Your task to perform on an android device: Is it going to rain today? Image 0: 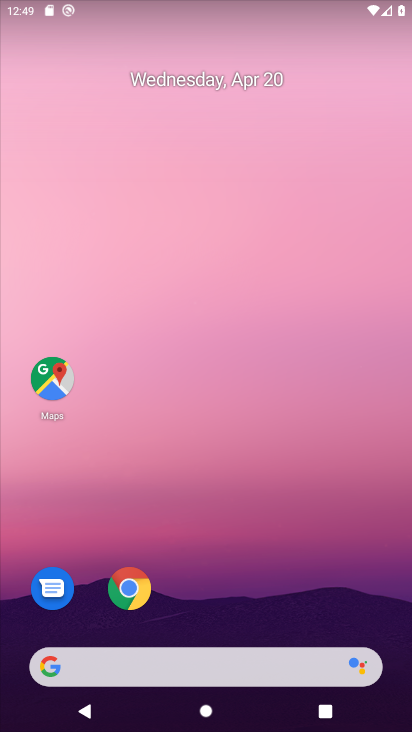
Step 0: drag from (184, 630) to (321, 126)
Your task to perform on an android device: Is it going to rain today? Image 1: 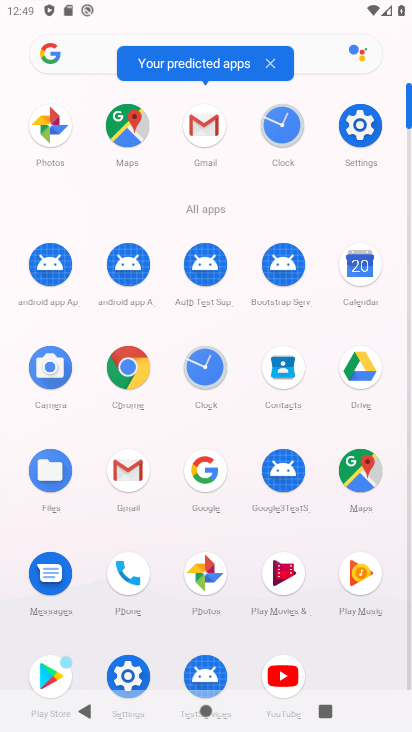
Step 1: click (201, 469)
Your task to perform on an android device: Is it going to rain today? Image 2: 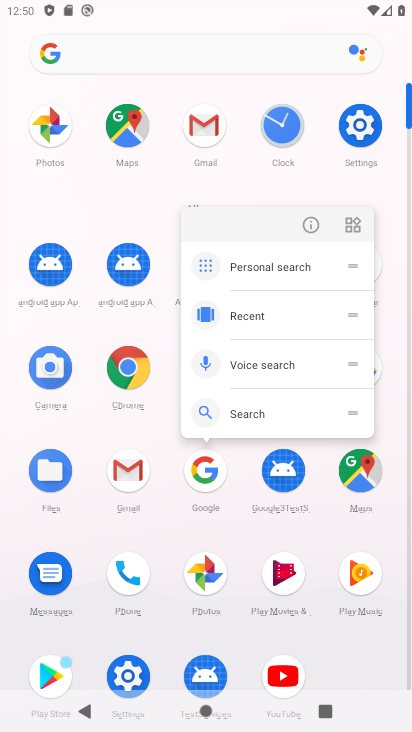
Step 2: click (205, 473)
Your task to perform on an android device: Is it going to rain today? Image 3: 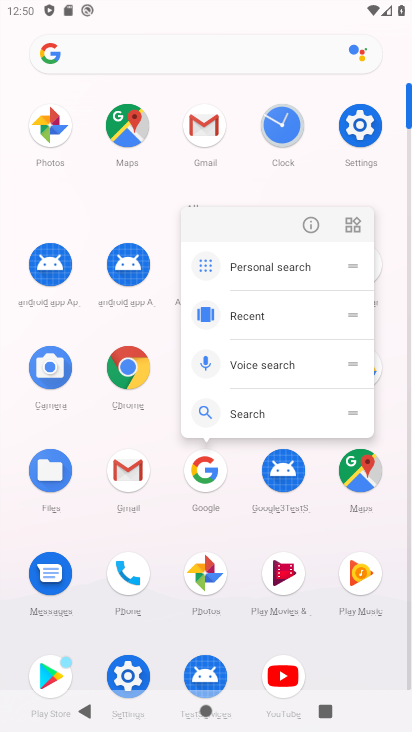
Step 3: click (209, 480)
Your task to perform on an android device: Is it going to rain today? Image 4: 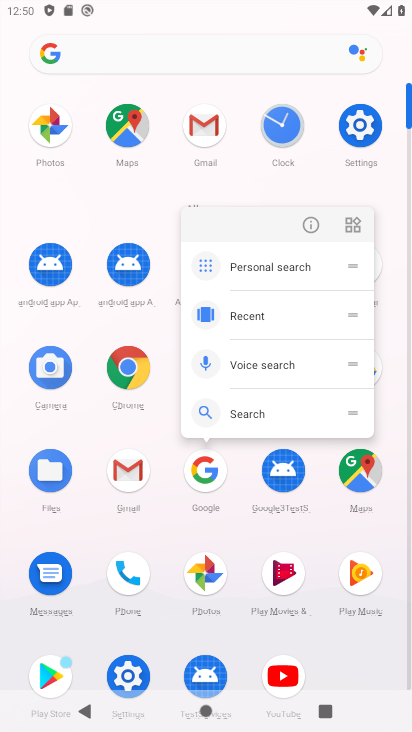
Step 4: click (204, 475)
Your task to perform on an android device: Is it going to rain today? Image 5: 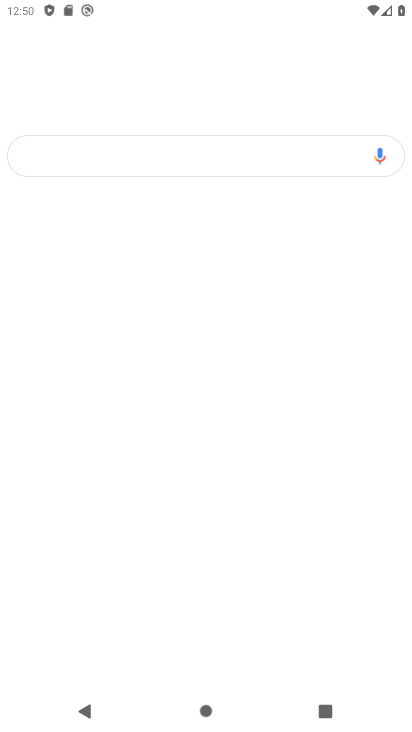
Step 5: click (205, 481)
Your task to perform on an android device: Is it going to rain today? Image 6: 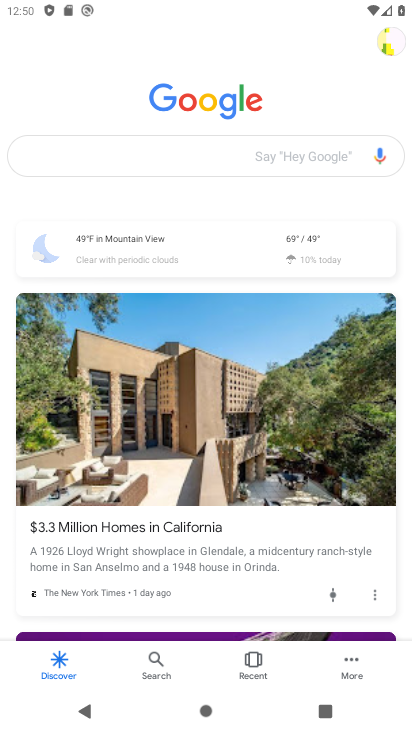
Step 6: click (294, 241)
Your task to perform on an android device: Is it going to rain today? Image 7: 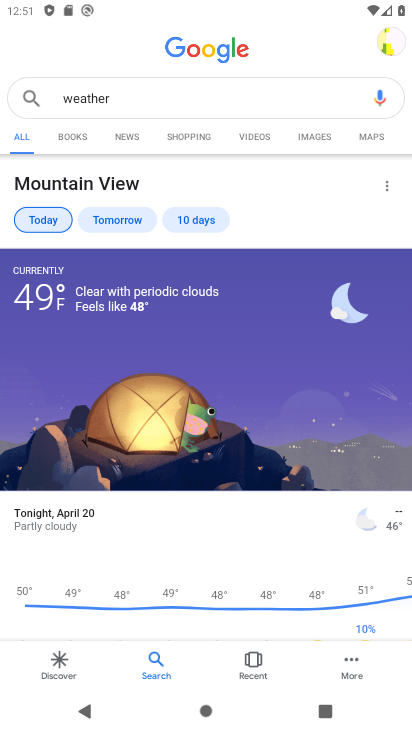
Step 7: task complete